Your task to perform on an android device: empty trash in google photos Image 0: 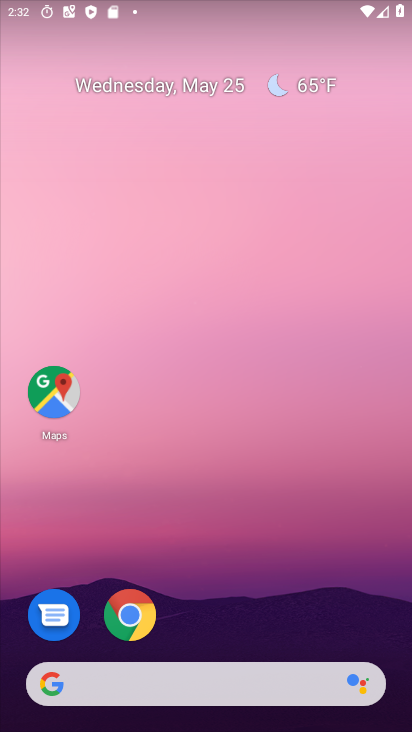
Step 0: drag from (396, 635) to (336, 195)
Your task to perform on an android device: empty trash in google photos Image 1: 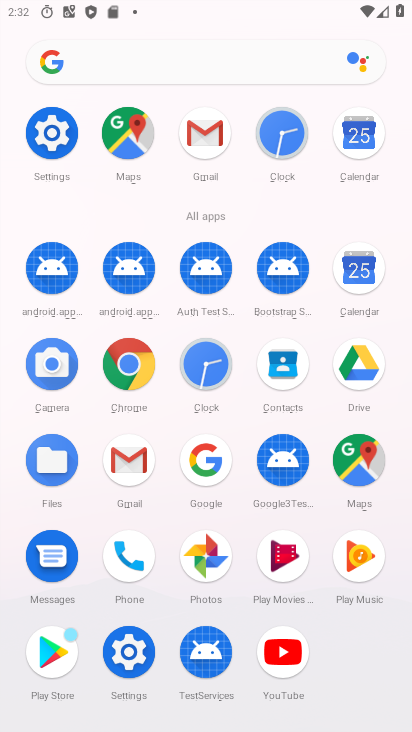
Step 1: click (206, 563)
Your task to perform on an android device: empty trash in google photos Image 2: 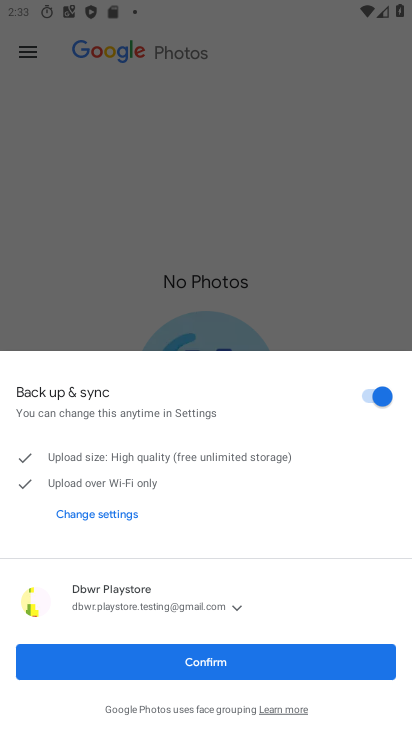
Step 2: click (198, 667)
Your task to perform on an android device: empty trash in google photos Image 3: 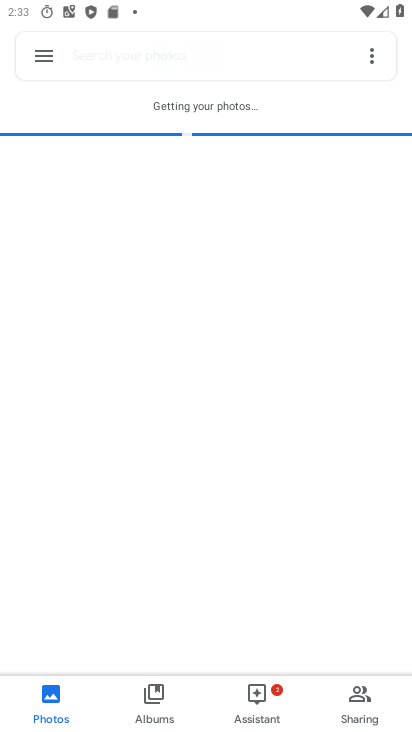
Step 3: click (39, 52)
Your task to perform on an android device: empty trash in google photos Image 4: 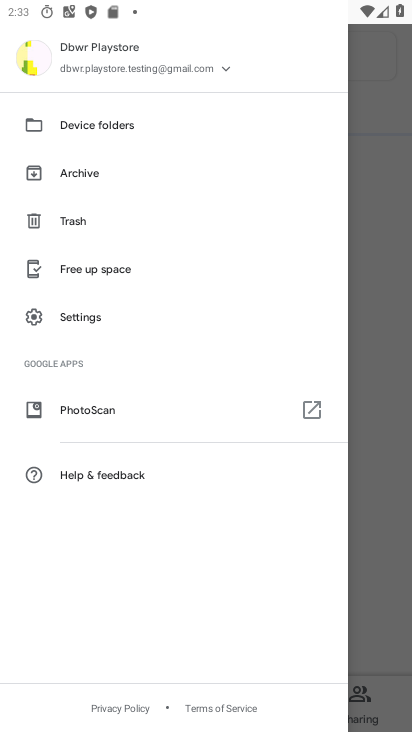
Step 4: click (58, 218)
Your task to perform on an android device: empty trash in google photos Image 5: 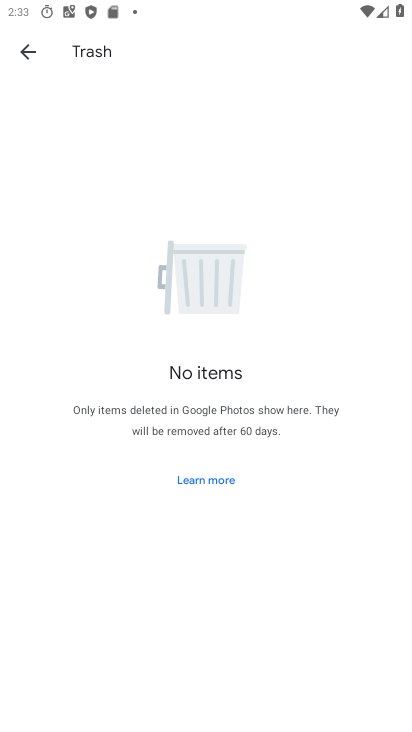
Step 5: task complete